Your task to perform on an android device: empty trash in google photos Image 0: 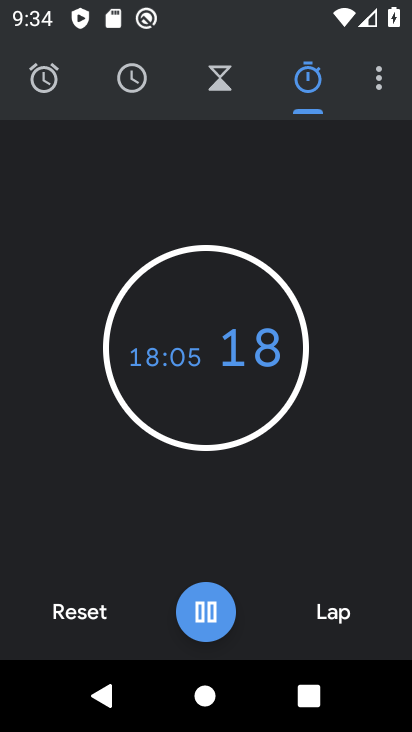
Step 0: press home button
Your task to perform on an android device: empty trash in google photos Image 1: 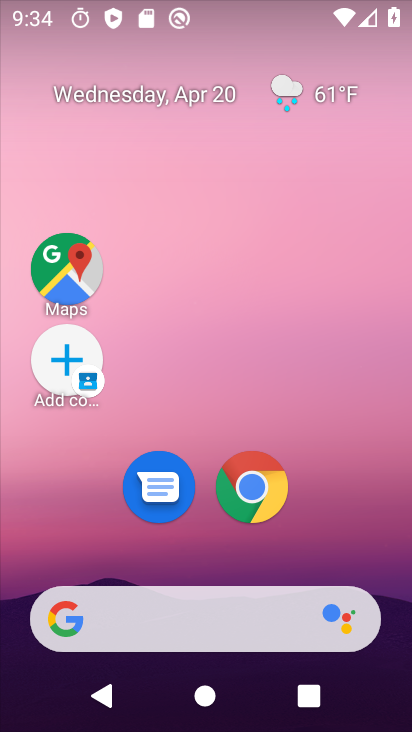
Step 1: drag from (315, 566) to (260, 33)
Your task to perform on an android device: empty trash in google photos Image 2: 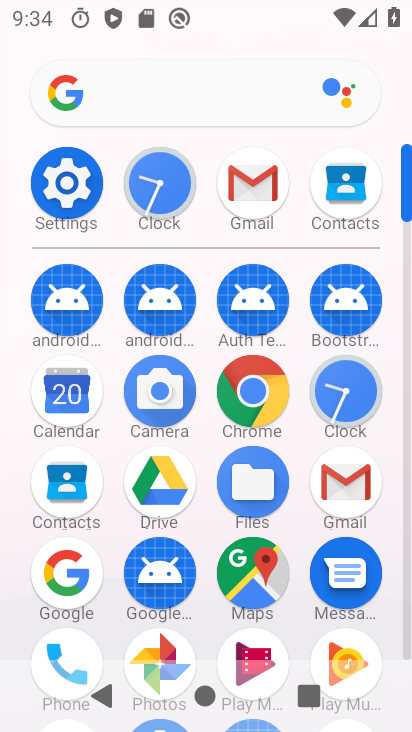
Step 2: drag from (205, 523) to (199, 407)
Your task to perform on an android device: empty trash in google photos Image 3: 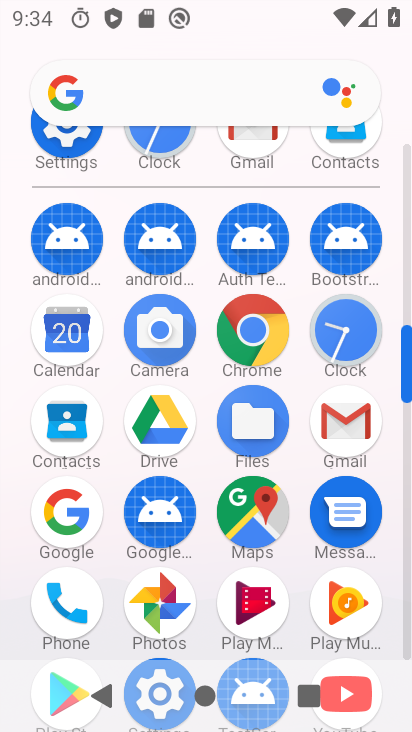
Step 3: click (167, 583)
Your task to perform on an android device: empty trash in google photos Image 4: 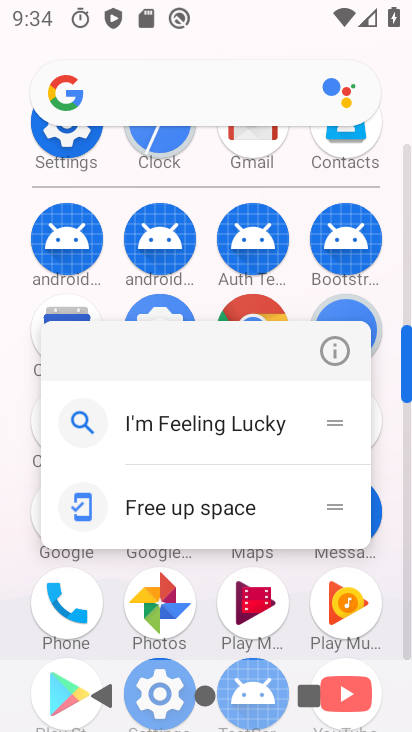
Step 4: click (163, 582)
Your task to perform on an android device: empty trash in google photos Image 5: 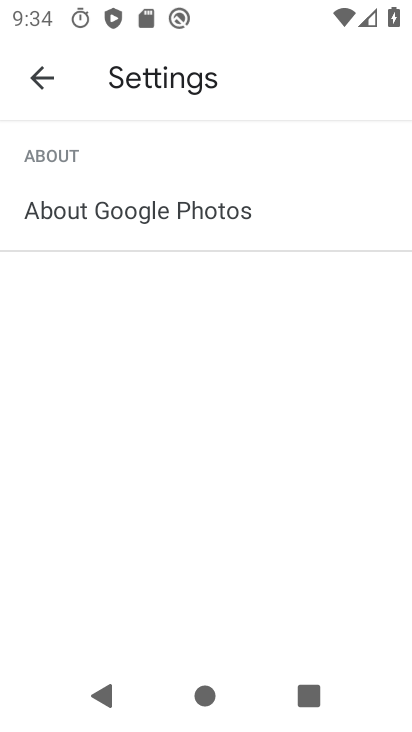
Step 5: click (31, 73)
Your task to perform on an android device: empty trash in google photos Image 6: 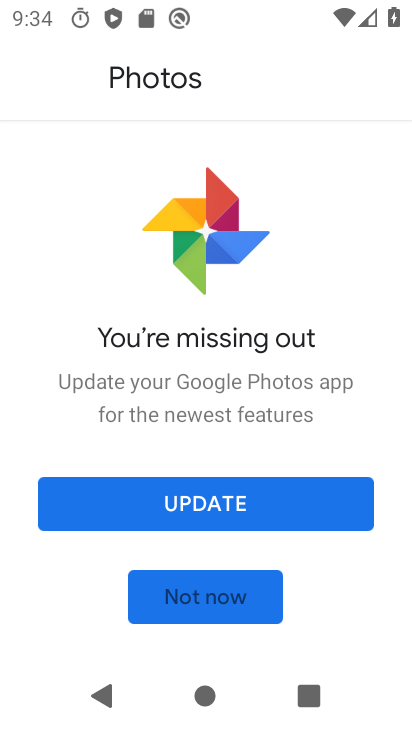
Step 6: click (209, 489)
Your task to perform on an android device: empty trash in google photos Image 7: 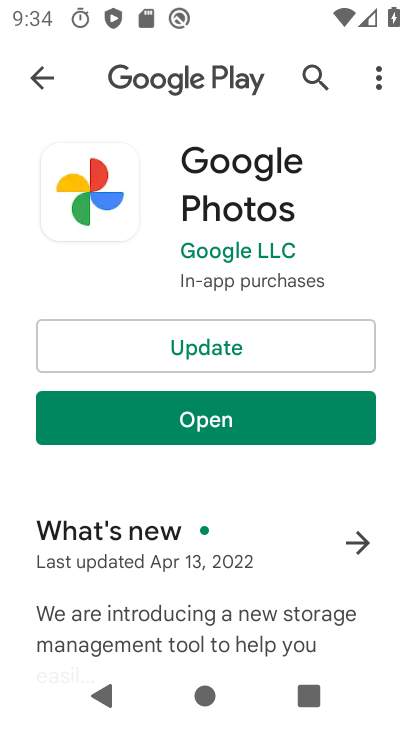
Step 7: click (235, 338)
Your task to perform on an android device: empty trash in google photos Image 8: 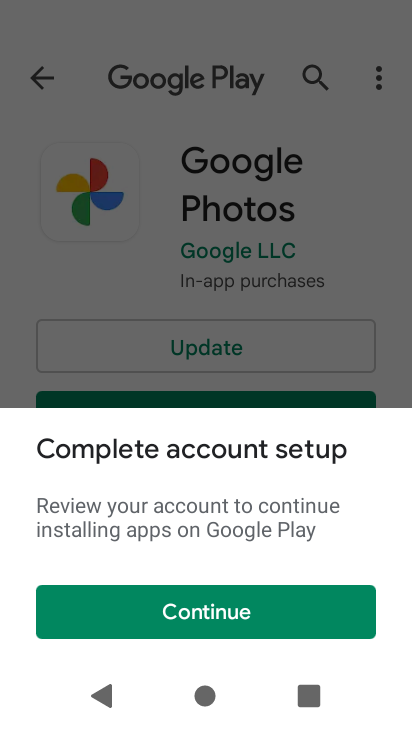
Step 8: click (265, 602)
Your task to perform on an android device: empty trash in google photos Image 9: 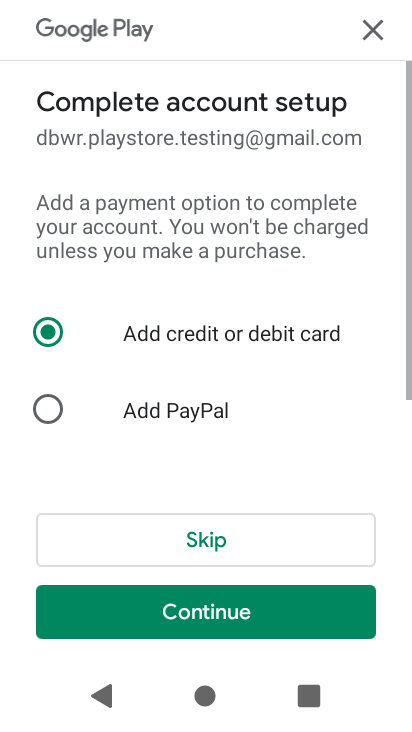
Step 9: click (248, 359)
Your task to perform on an android device: empty trash in google photos Image 10: 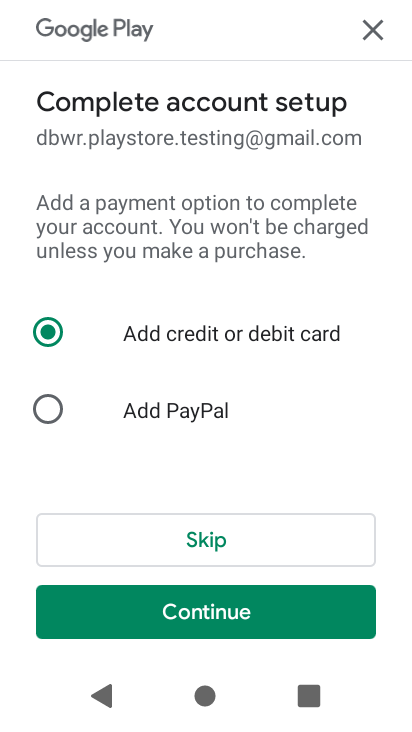
Step 10: click (371, 29)
Your task to perform on an android device: empty trash in google photos Image 11: 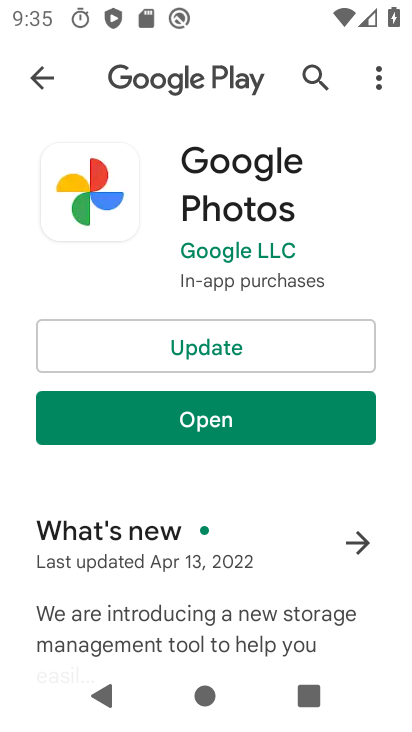
Step 11: click (165, 350)
Your task to perform on an android device: empty trash in google photos Image 12: 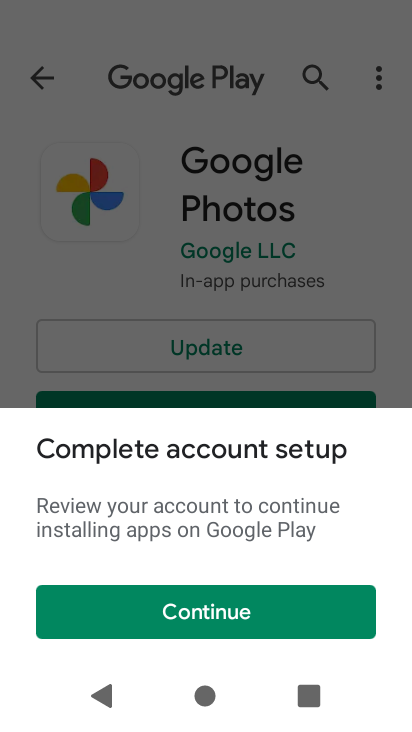
Step 12: click (197, 624)
Your task to perform on an android device: empty trash in google photos Image 13: 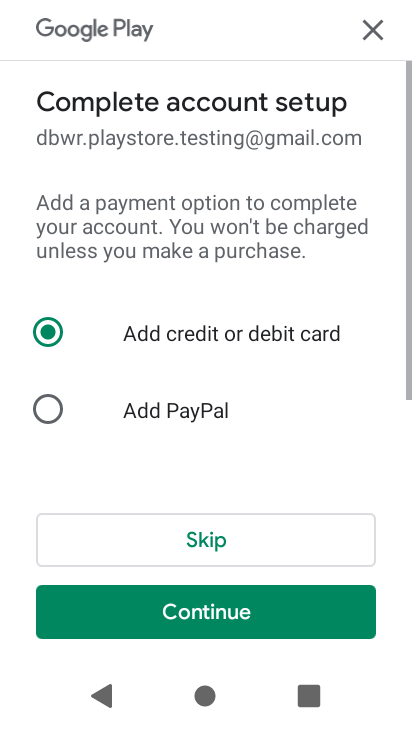
Step 13: click (239, 528)
Your task to perform on an android device: empty trash in google photos Image 14: 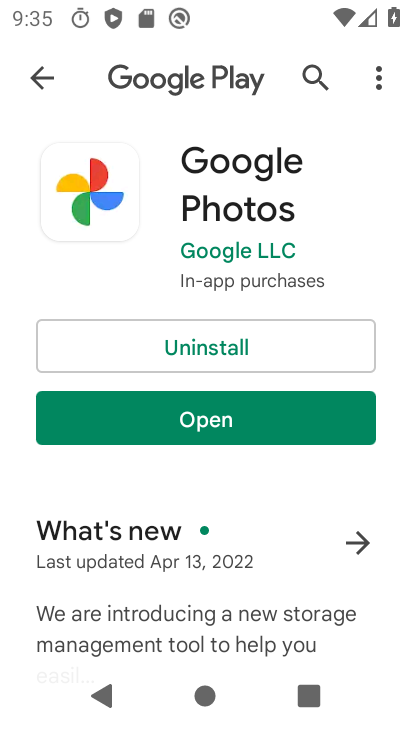
Step 14: click (159, 427)
Your task to perform on an android device: empty trash in google photos Image 15: 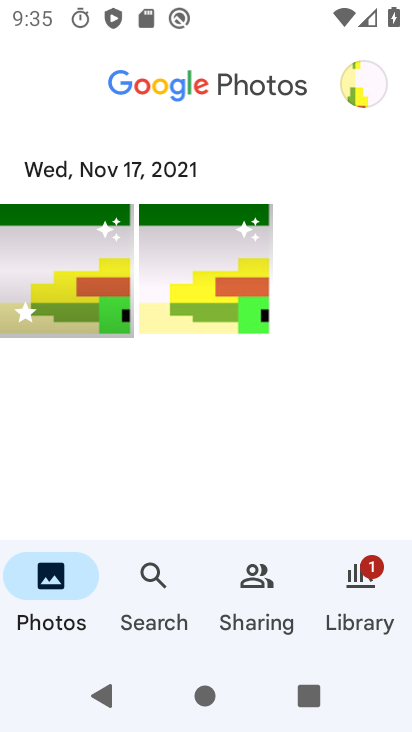
Step 15: click (340, 618)
Your task to perform on an android device: empty trash in google photos Image 16: 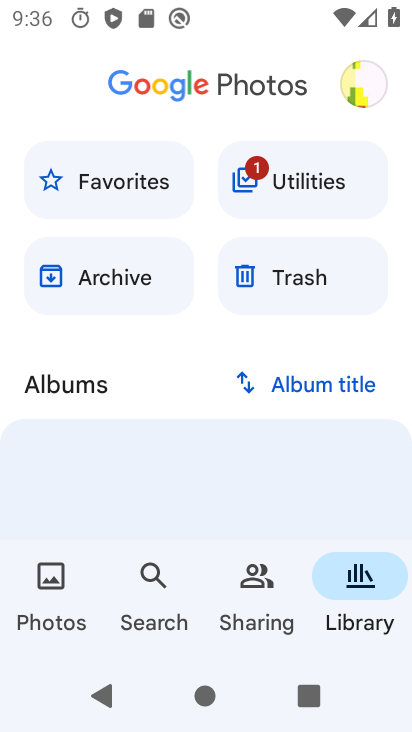
Step 16: click (307, 251)
Your task to perform on an android device: empty trash in google photos Image 17: 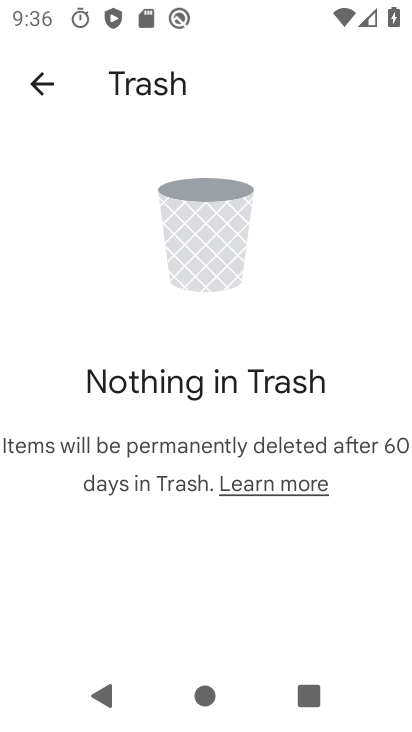
Step 17: task complete